Your task to perform on an android device: Open Google Maps and go to "Timeline" Image 0: 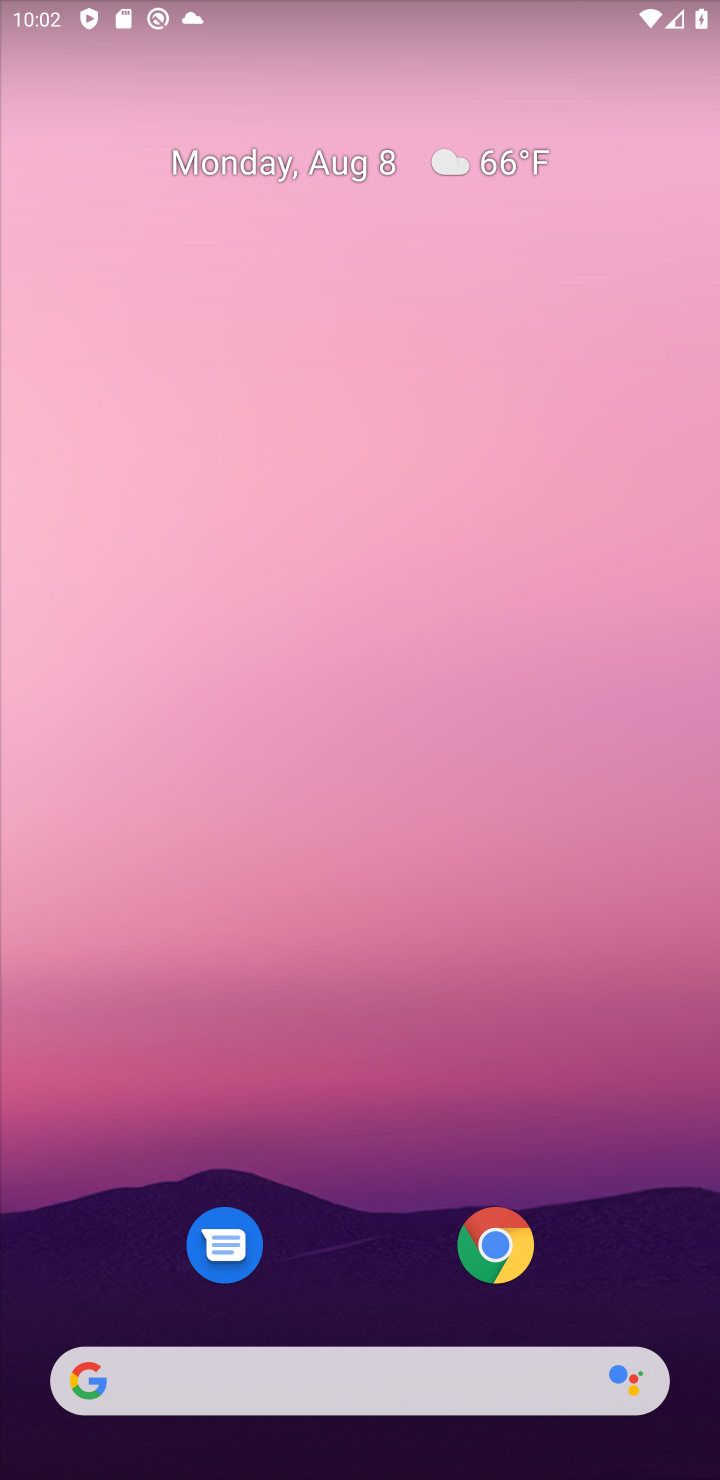
Step 0: drag from (337, 1178) to (329, 279)
Your task to perform on an android device: Open Google Maps and go to "Timeline" Image 1: 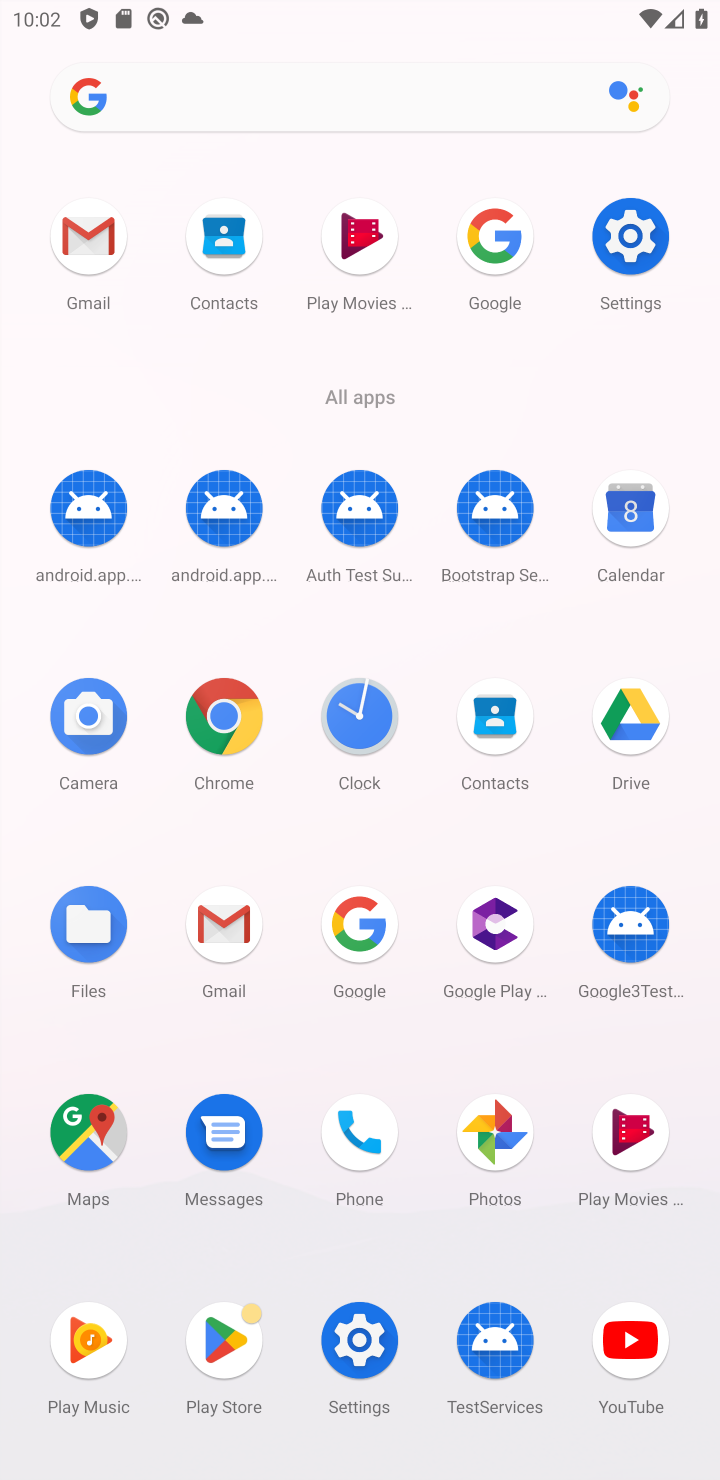
Step 1: click (100, 1135)
Your task to perform on an android device: Open Google Maps and go to "Timeline" Image 2: 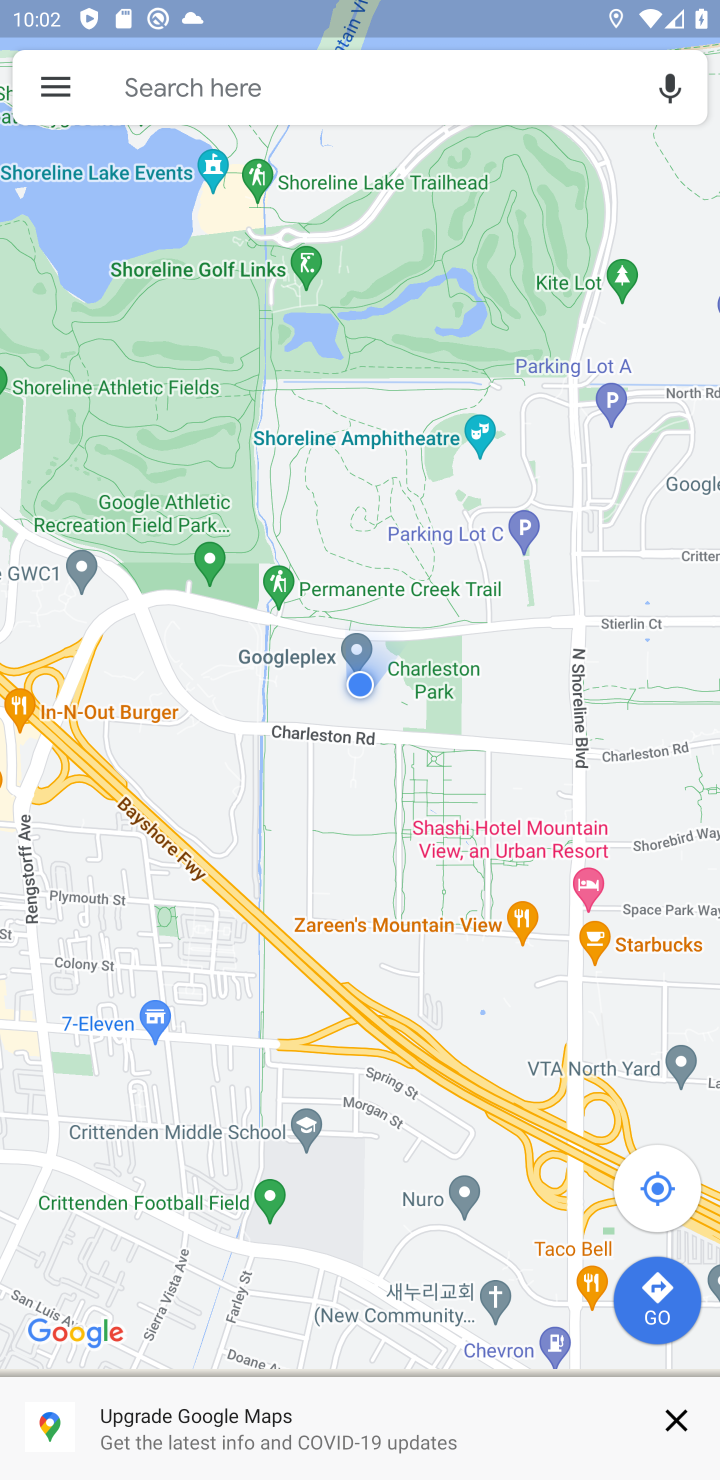
Step 2: click (50, 93)
Your task to perform on an android device: Open Google Maps and go to "Timeline" Image 3: 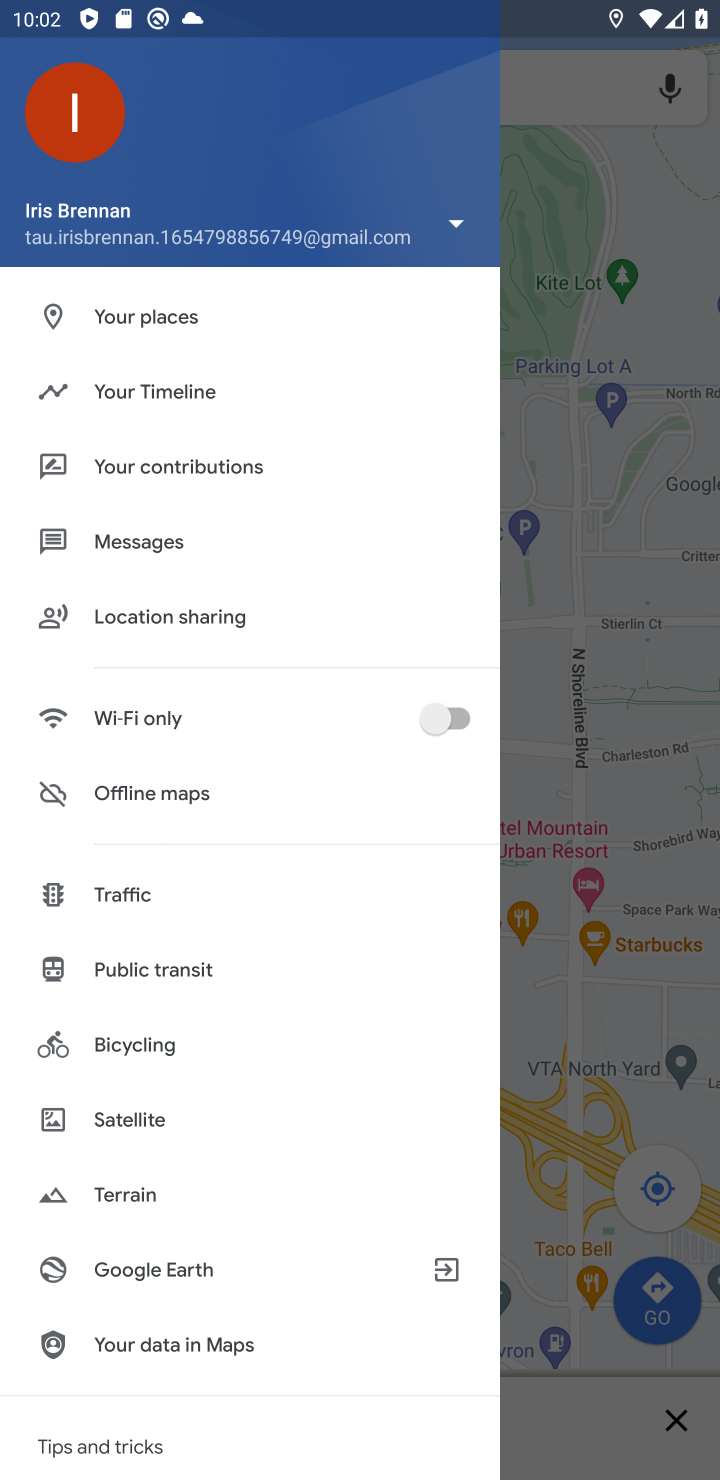
Step 3: click (167, 384)
Your task to perform on an android device: Open Google Maps and go to "Timeline" Image 4: 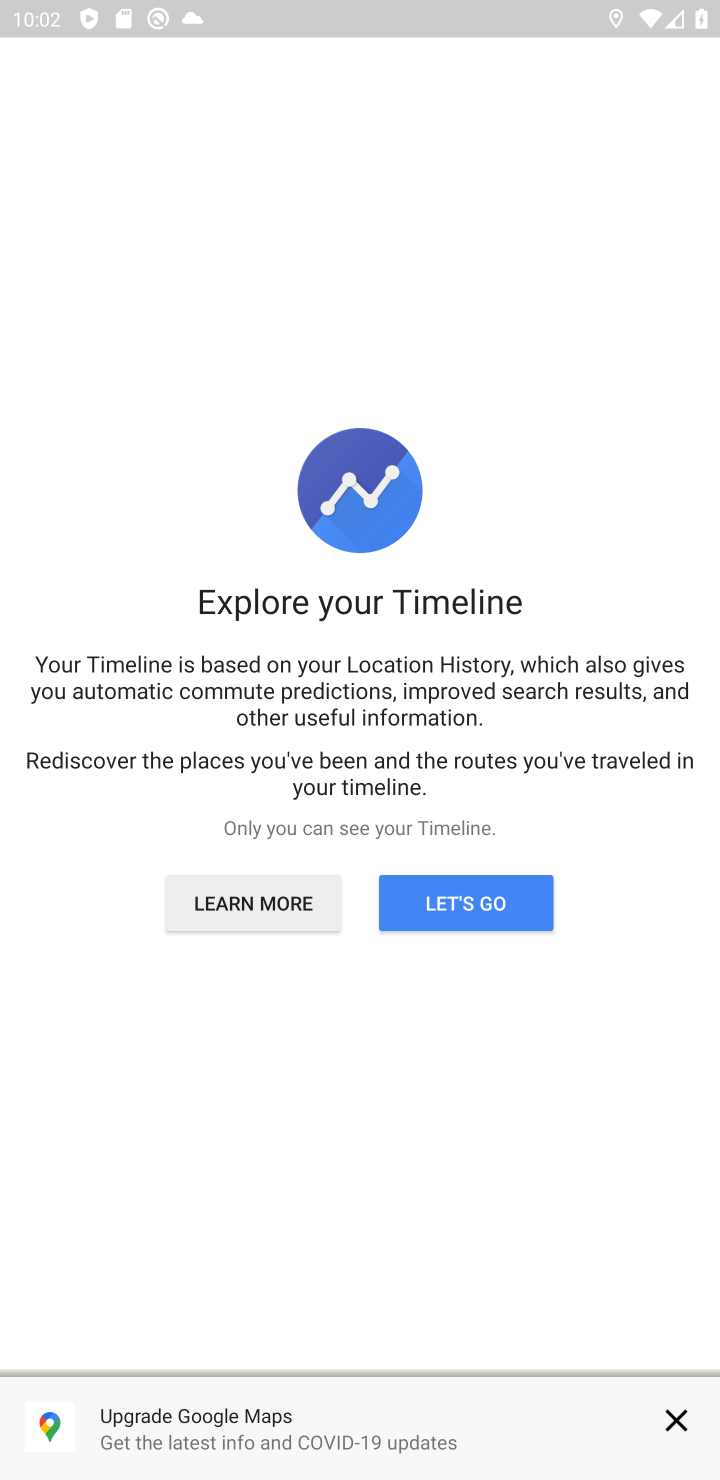
Step 4: click (449, 906)
Your task to perform on an android device: Open Google Maps and go to "Timeline" Image 5: 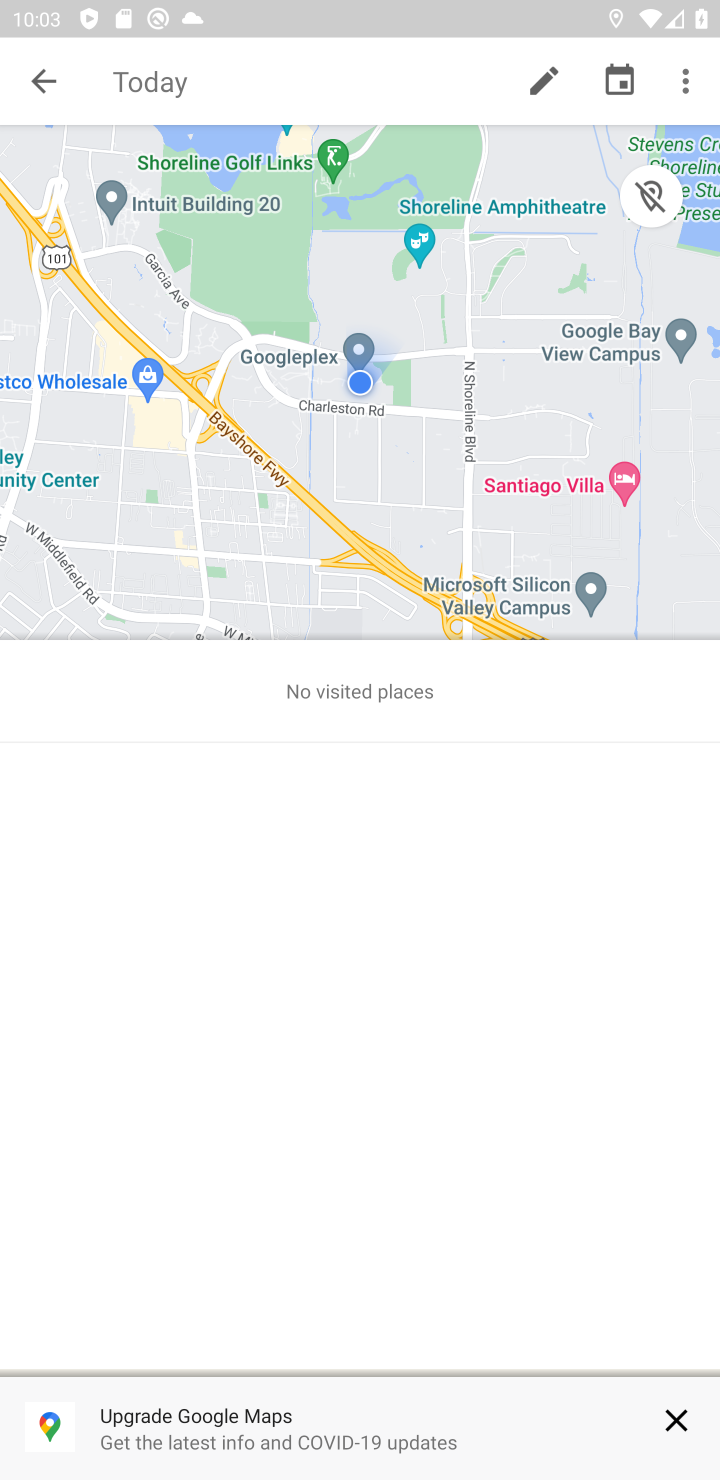
Step 5: task complete